Your task to perform on an android device: Do I have any events this weekend? Image 0: 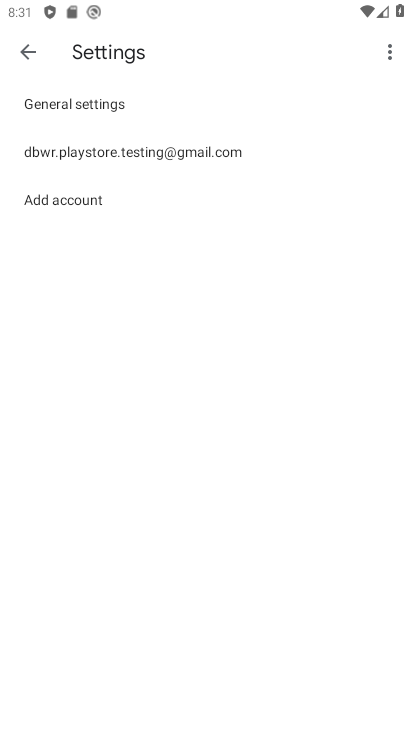
Step 0: press home button
Your task to perform on an android device: Do I have any events this weekend? Image 1: 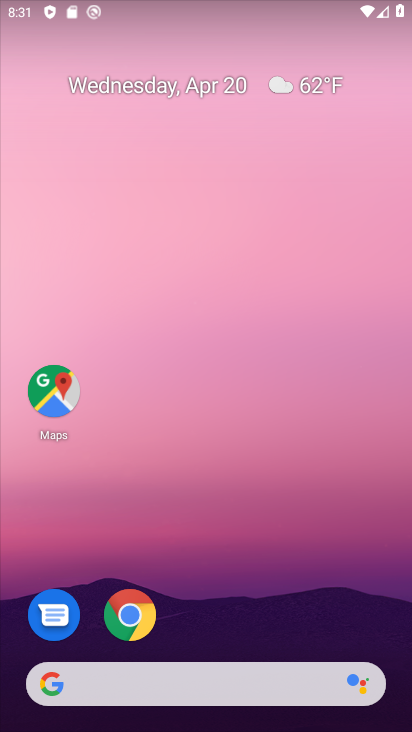
Step 1: drag from (158, 675) to (318, 176)
Your task to perform on an android device: Do I have any events this weekend? Image 2: 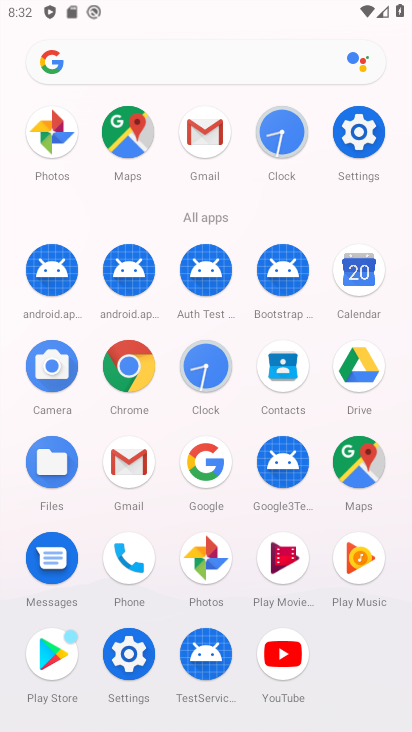
Step 2: click (366, 273)
Your task to perform on an android device: Do I have any events this weekend? Image 3: 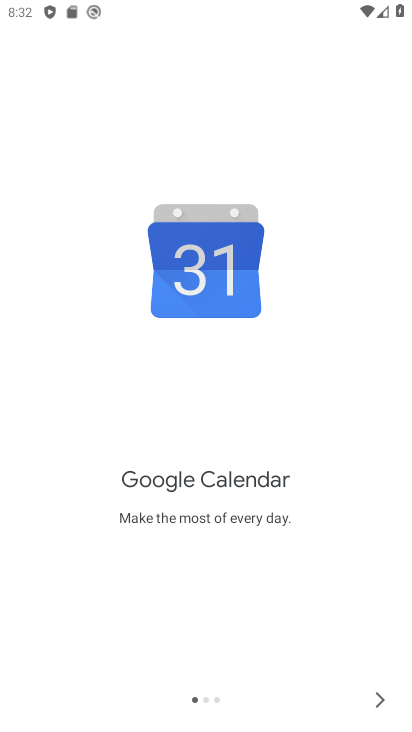
Step 3: click (380, 693)
Your task to perform on an android device: Do I have any events this weekend? Image 4: 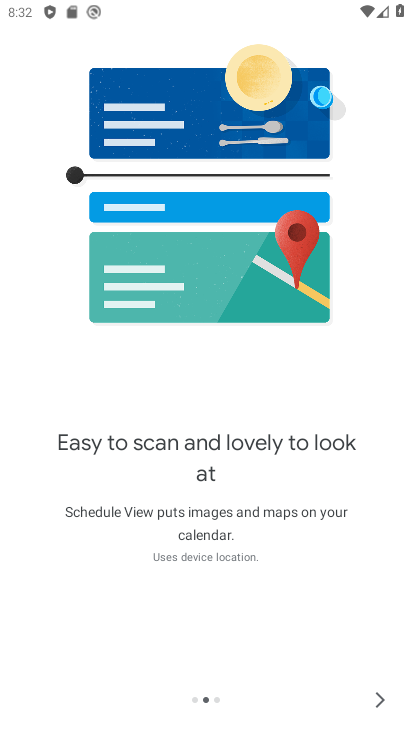
Step 4: click (377, 698)
Your task to perform on an android device: Do I have any events this weekend? Image 5: 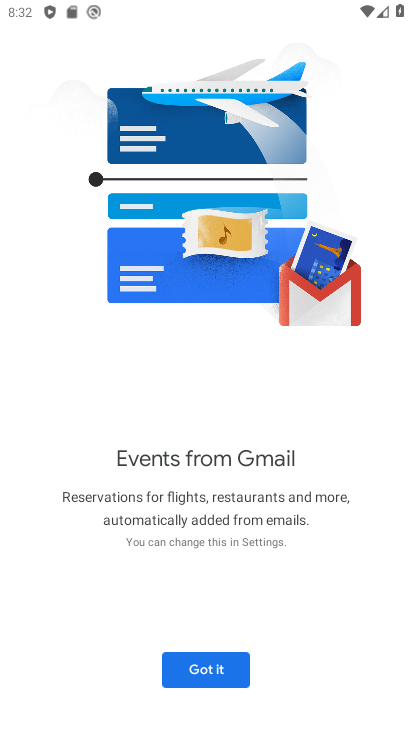
Step 5: click (216, 661)
Your task to perform on an android device: Do I have any events this weekend? Image 6: 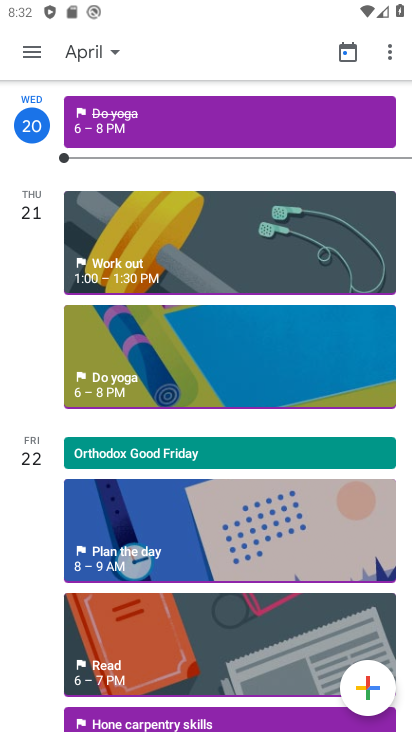
Step 6: click (89, 51)
Your task to perform on an android device: Do I have any events this weekend? Image 7: 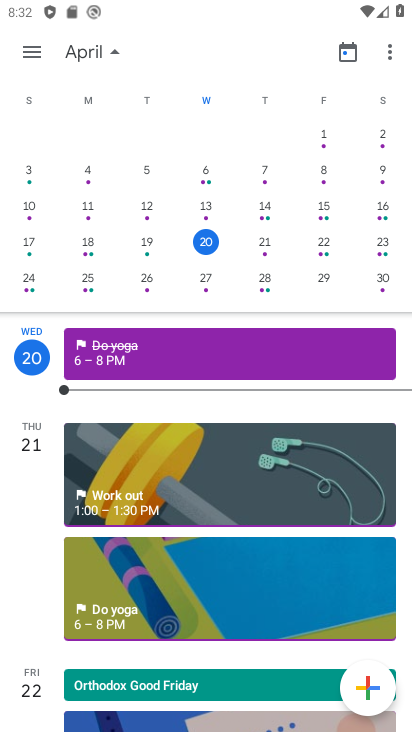
Step 7: click (387, 239)
Your task to perform on an android device: Do I have any events this weekend? Image 8: 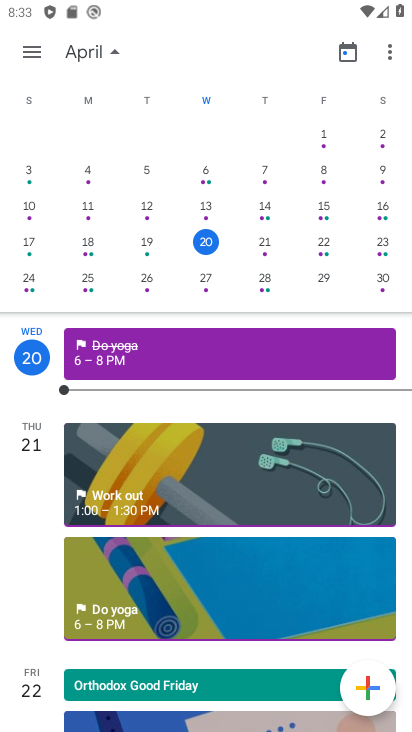
Step 8: click (381, 240)
Your task to perform on an android device: Do I have any events this weekend? Image 9: 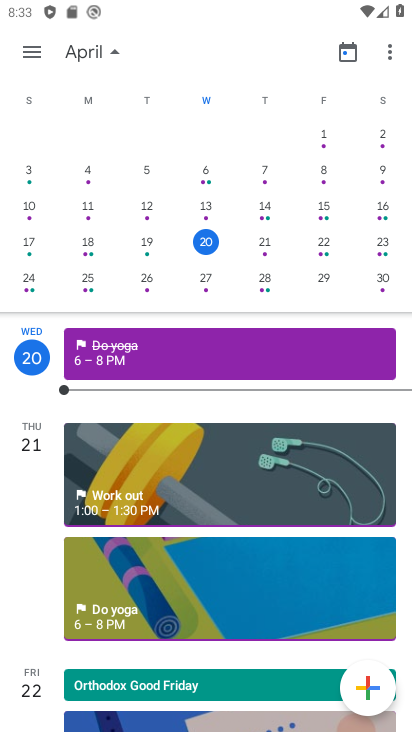
Step 9: click (380, 249)
Your task to perform on an android device: Do I have any events this weekend? Image 10: 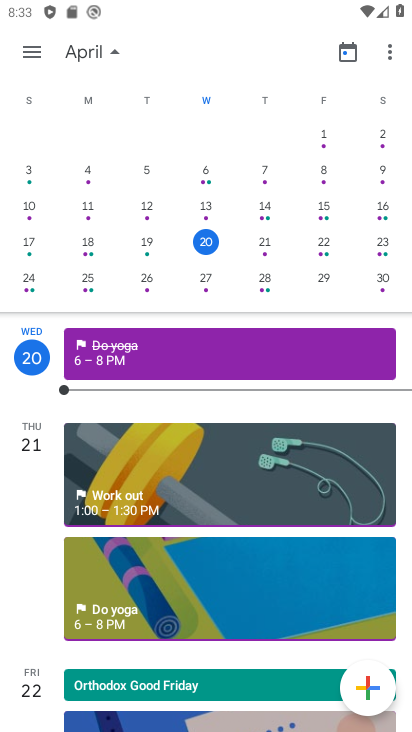
Step 10: click (380, 242)
Your task to perform on an android device: Do I have any events this weekend? Image 11: 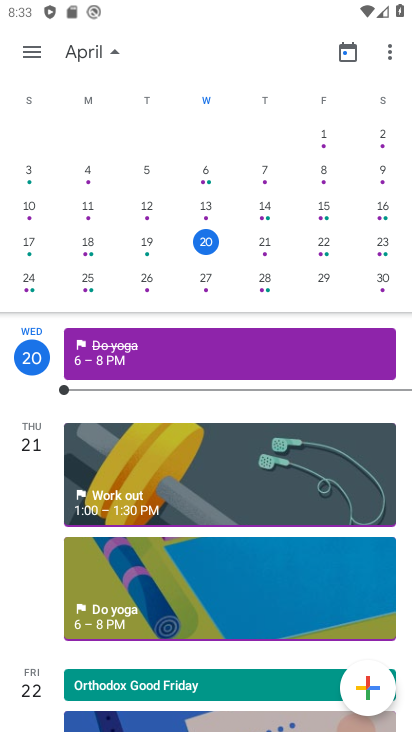
Step 11: click (380, 238)
Your task to perform on an android device: Do I have any events this weekend? Image 12: 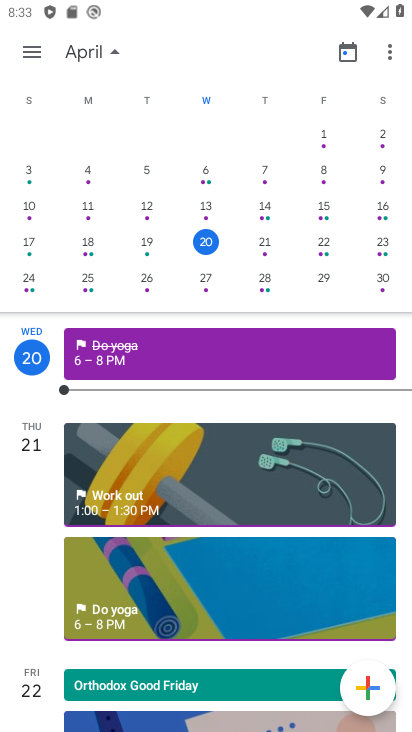
Step 12: click (29, 283)
Your task to perform on an android device: Do I have any events this weekend? Image 13: 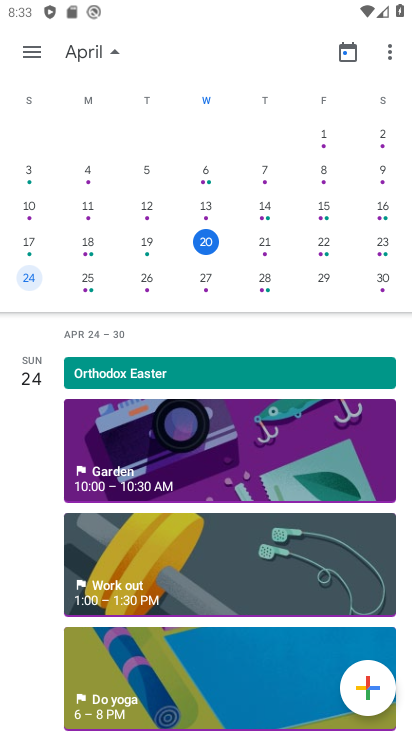
Step 13: click (37, 50)
Your task to perform on an android device: Do I have any events this weekend? Image 14: 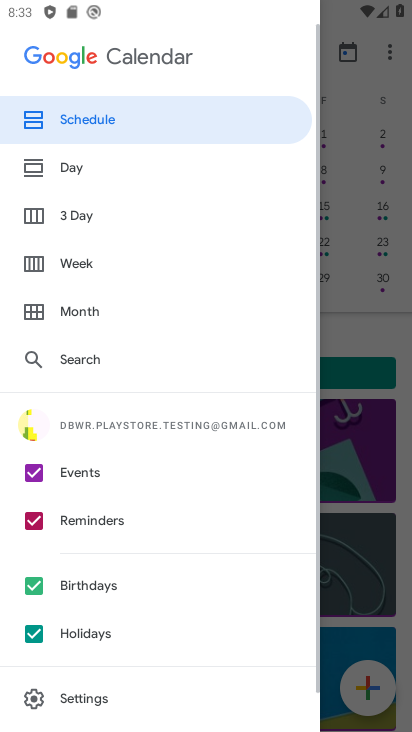
Step 14: click (68, 112)
Your task to perform on an android device: Do I have any events this weekend? Image 15: 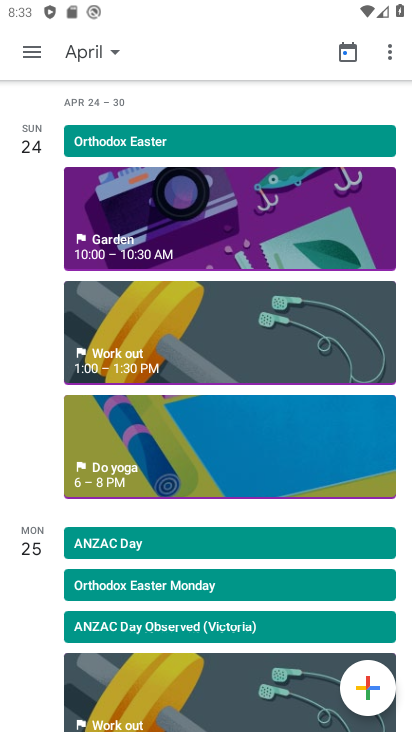
Step 15: click (143, 208)
Your task to perform on an android device: Do I have any events this weekend? Image 16: 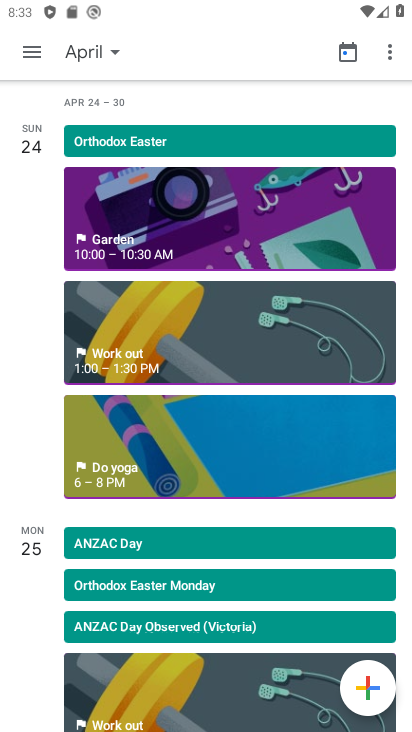
Step 16: click (113, 241)
Your task to perform on an android device: Do I have any events this weekend? Image 17: 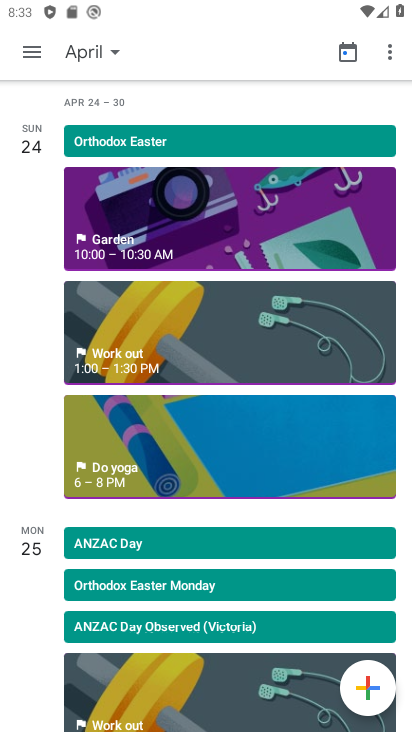
Step 17: click (129, 246)
Your task to perform on an android device: Do I have any events this weekend? Image 18: 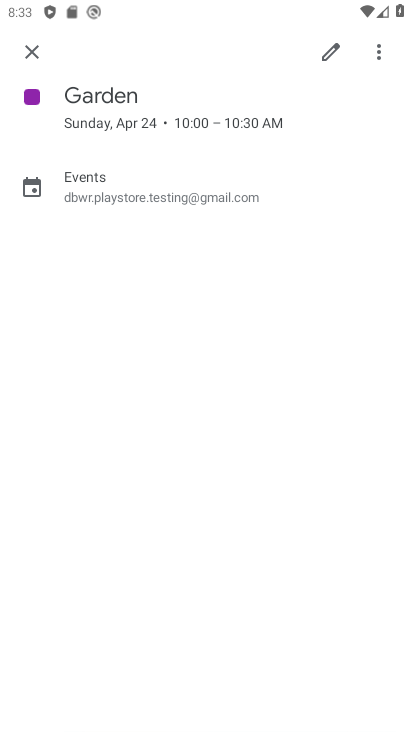
Step 18: task complete